Your task to perform on an android device: Go to network settings Image 0: 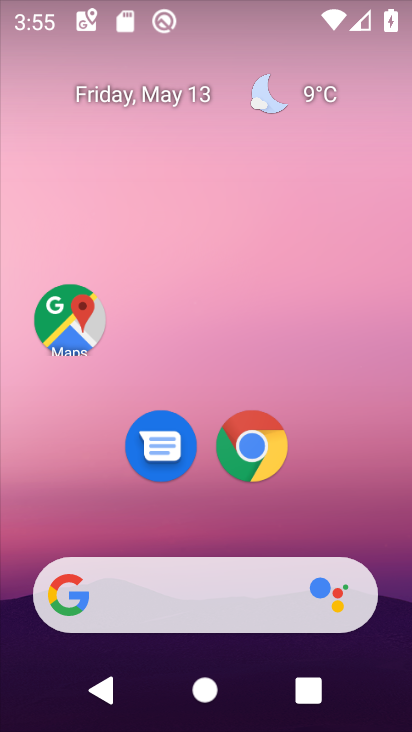
Step 0: drag from (215, 534) to (255, 49)
Your task to perform on an android device: Go to network settings Image 1: 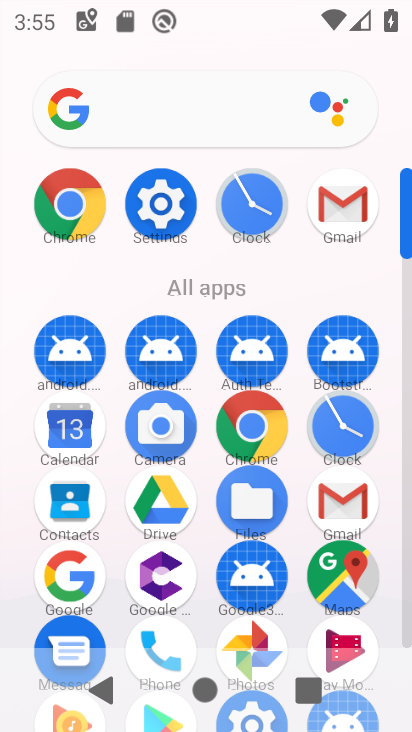
Step 1: click (153, 198)
Your task to perform on an android device: Go to network settings Image 2: 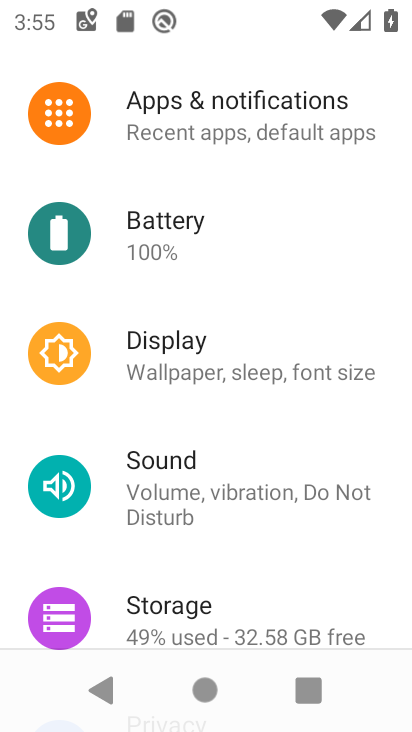
Step 2: drag from (151, 183) to (199, 536)
Your task to perform on an android device: Go to network settings Image 3: 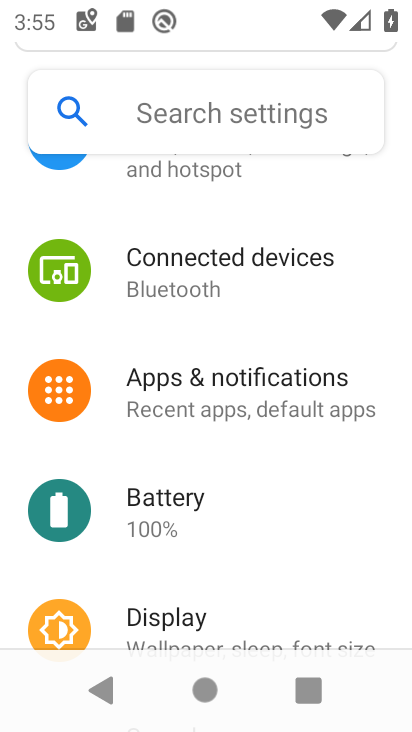
Step 3: drag from (200, 231) to (269, 526)
Your task to perform on an android device: Go to network settings Image 4: 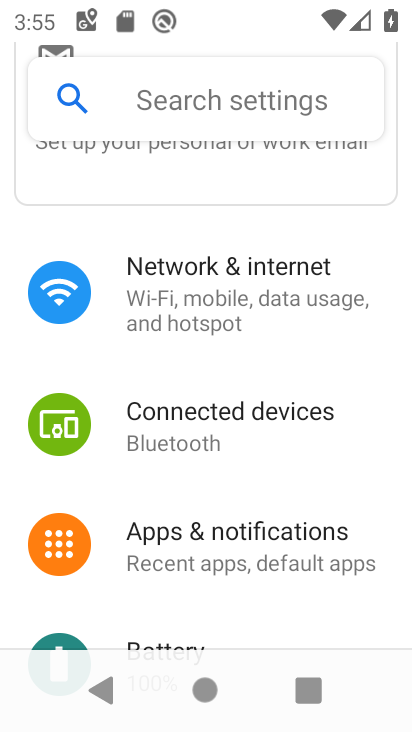
Step 4: click (154, 294)
Your task to perform on an android device: Go to network settings Image 5: 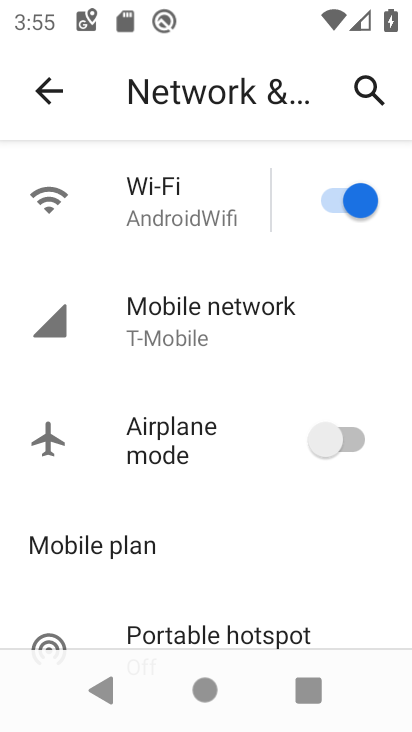
Step 5: click (141, 317)
Your task to perform on an android device: Go to network settings Image 6: 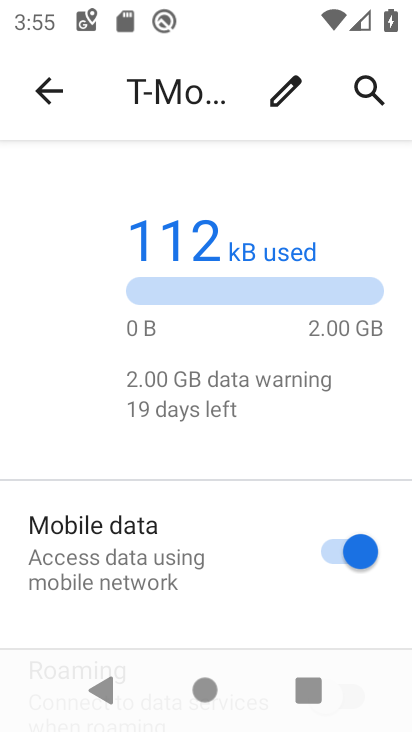
Step 6: task complete